Your task to perform on an android device: Open the stopwatch Image 0: 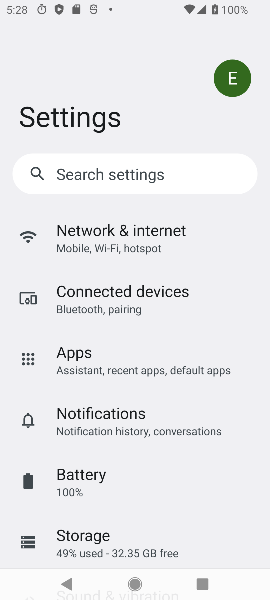
Step 0: press back button
Your task to perform on an android device: Open the stopwatch Image 1: 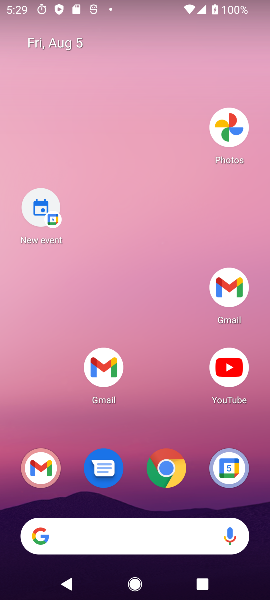
Step 1: drag from (177, 490) to (91, 118)
Your task to perform on an android device: Open the stopwatch Image 2: 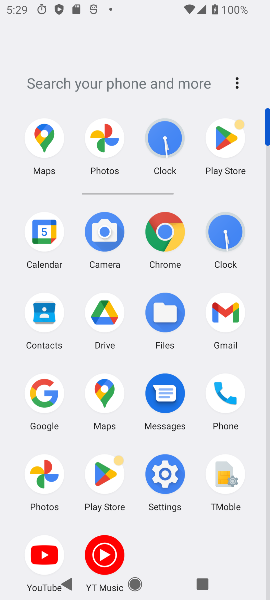
Step 2: drag from (130, 326) to (97, 115)
Your task to perform on an android device: Open the stopwatch Image 3: 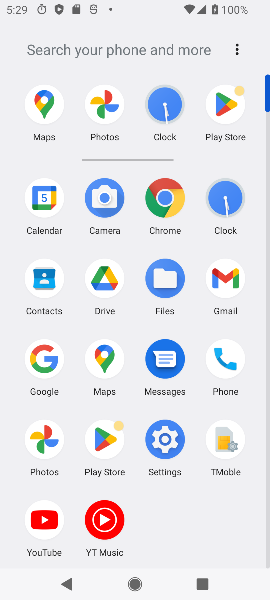
Step 3: click (219, 194)
Your task to perform on an android device: Open the stopwatch Image 4: 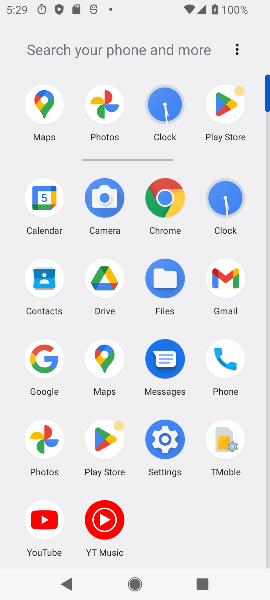
Step 4: click (219, 194)
Your task to perform on an android device: Open the stopwatch Image 5: 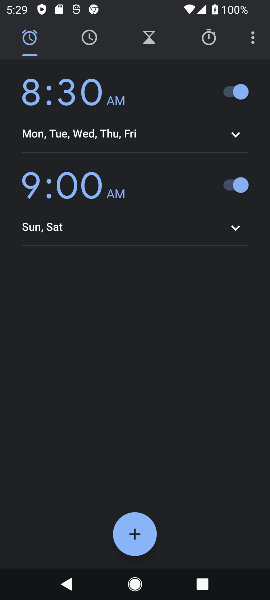
Step 5: click (219, 192)
Your task to perform on an android device: Open the stopwatch Image 6: 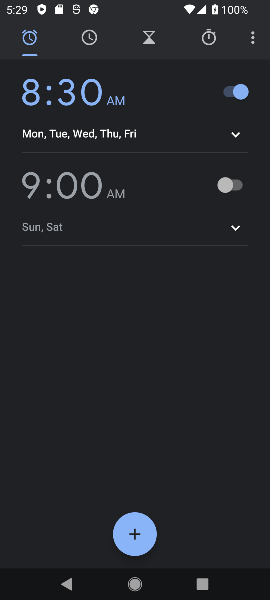
Step 6: press back button
Your task to perform on an android device: Open the stopwatch Image 7: 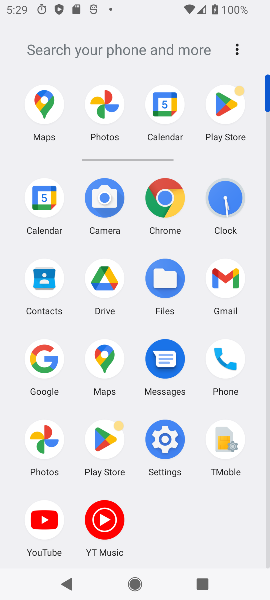
Step 7: click (229, 198)
Your task to perform on an android device: Open the stopwatch Image 8: 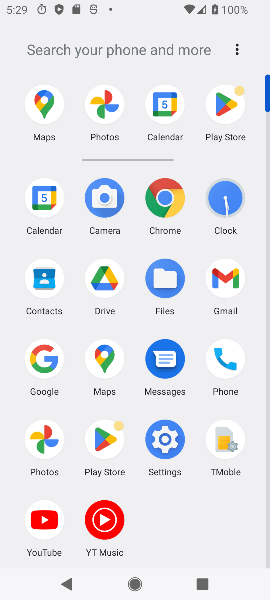
Step 8: click (226, 196)
Your task to perform on an android device: Open the stopwatch Image 9: 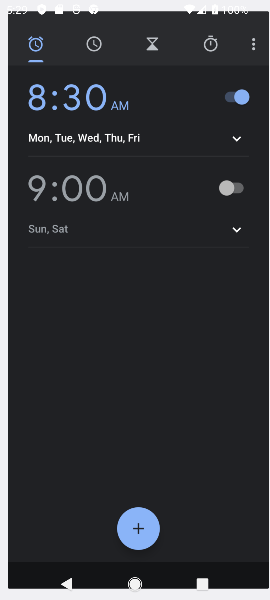
Step 9: click (225, 198)
Your task to perform on an android device: Open the stopwatch Image 10: 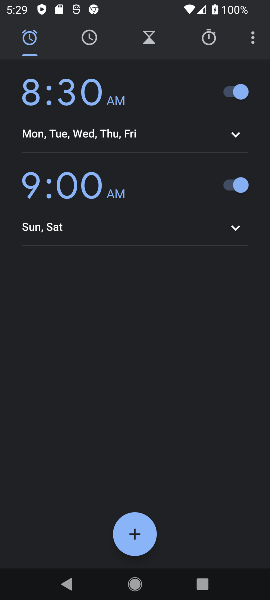
Step 10: click (208, 35)
Your task to perform on an android device: Open the stopwatch Image 11: 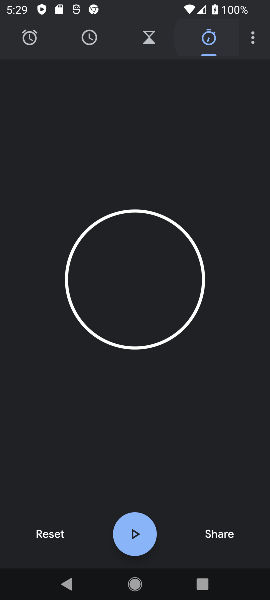
Step 11: click (208, 34)
Your task to perform on an android device: Open the stopwatch Image 12: 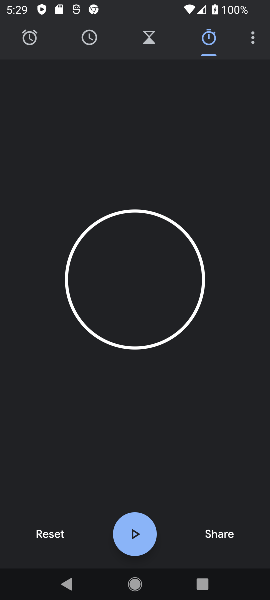
Step 12: click (129, 538)
Your task to perform on an android device: Open the stopwatch Image 13: 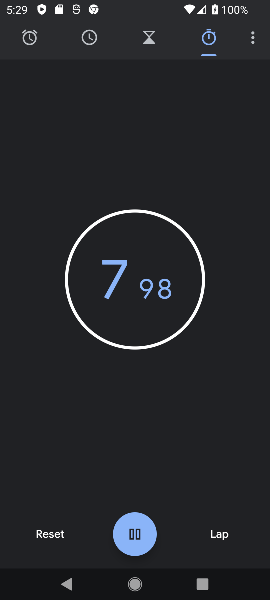
Step 13: click (136, 532)
Your task to perform on an android device: Open the stopwatch Image 14: 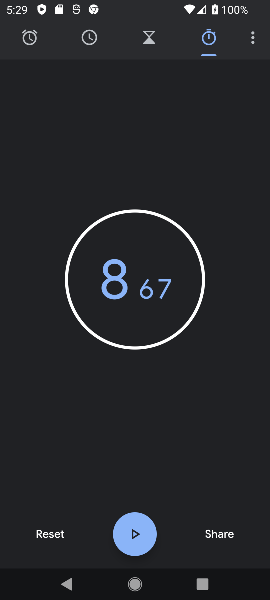
Step 14: task complete